Your task to perform on an android device: open device folders in google photos Image 0: 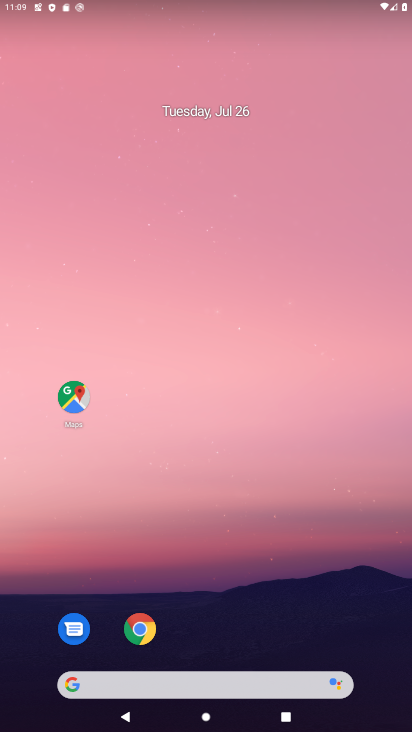
Step 0: drag from (220, 638) to (208, 243)
Your task to perform on an android device: open device folders in google photos Image 1: 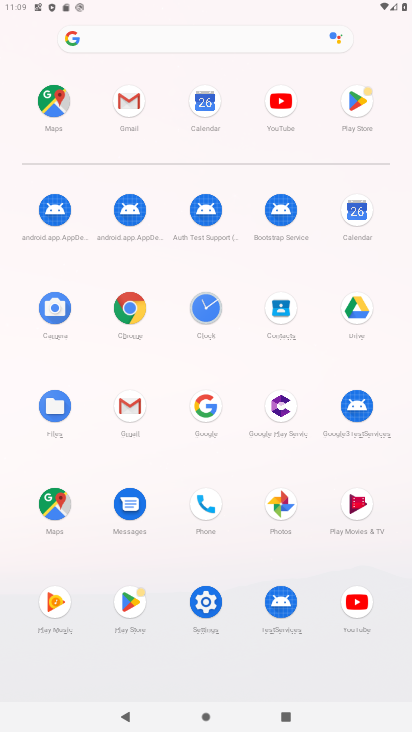
Step 1: click (284, 511)
Your task to perform on an android device: open device folders in google photos Image 2: 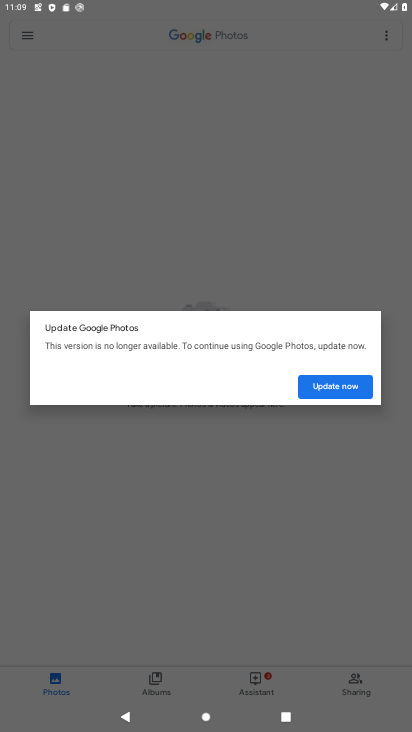
Step 2: click (350, 387)
Your task to perform on an android device: open device folders in google photos Image 3: 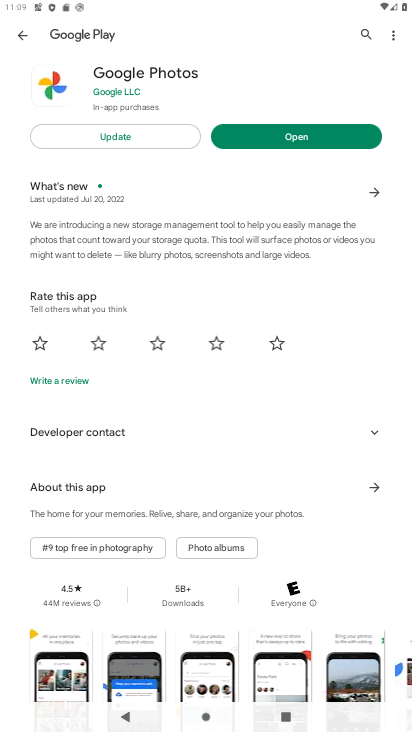
Step 3: click (127, 140)
Your task to perform on an android device: open device folders in google photos Image 4: 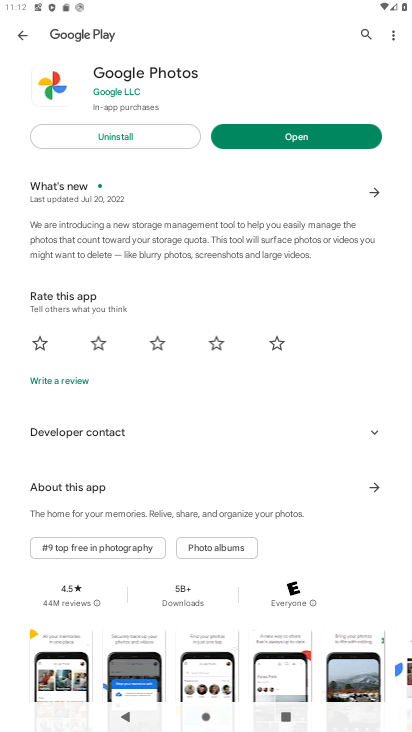
Step 4: click (285, 149)
Your task to perform on an android device: open device folders in google photos Image 5: 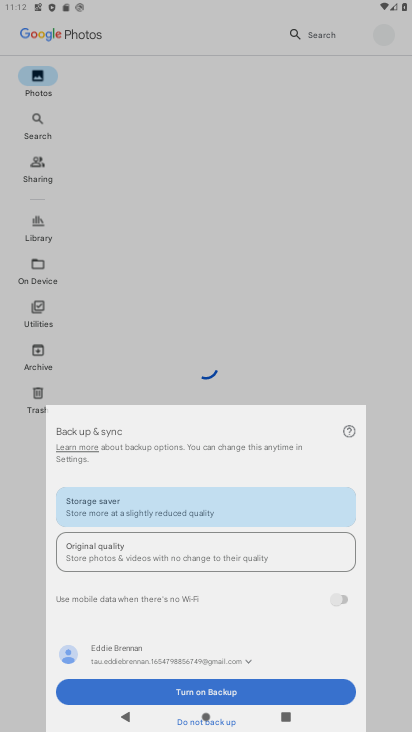
Step 5: click (50, 262)
Your task to perform on an android device: open device folders in google photos Image 6: 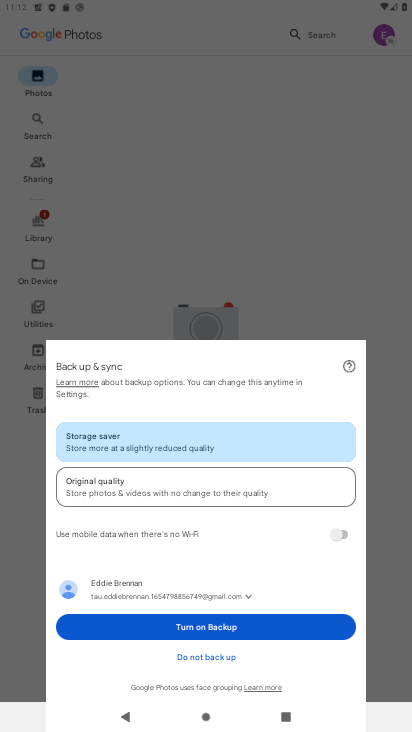
Step 6: click (192, 665)
Your task to perform on an android device: open device folders in google photos Image 7: 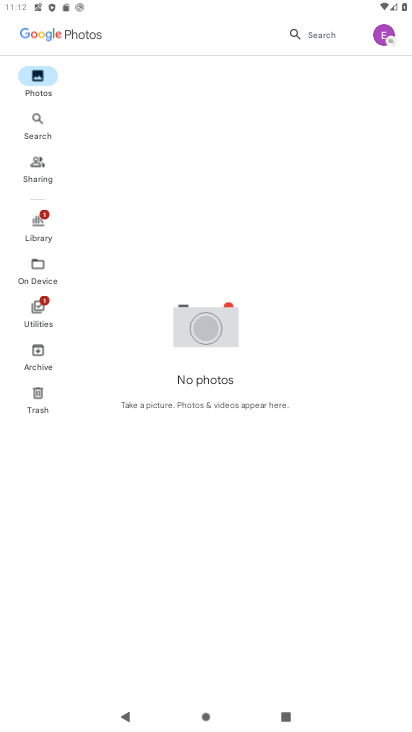
Step 7: task complete